Your task to perform on an android device: Open Google Maps Image 0: 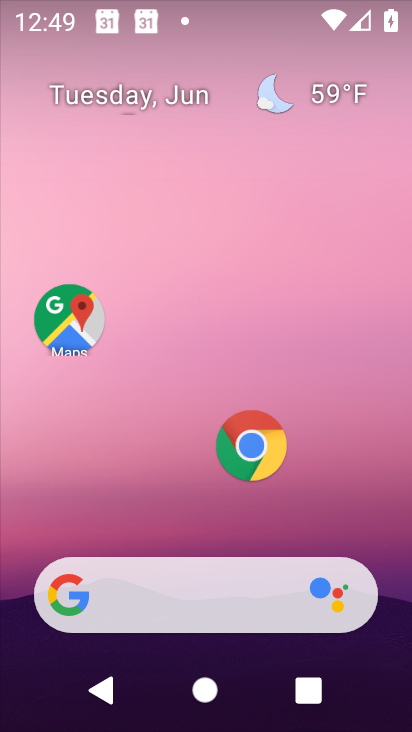
Step 0: click (65, 313)
Your task to perform on an android device: Open Google Maps Image 1: 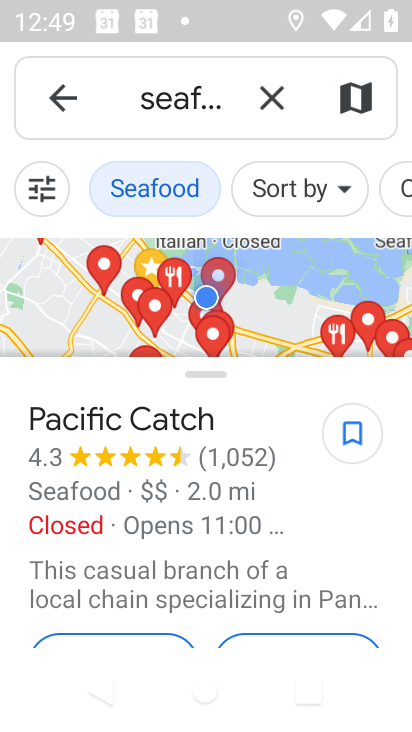
Step 1: task complete